Your task to perform on an android device: set an alarm Image 0: 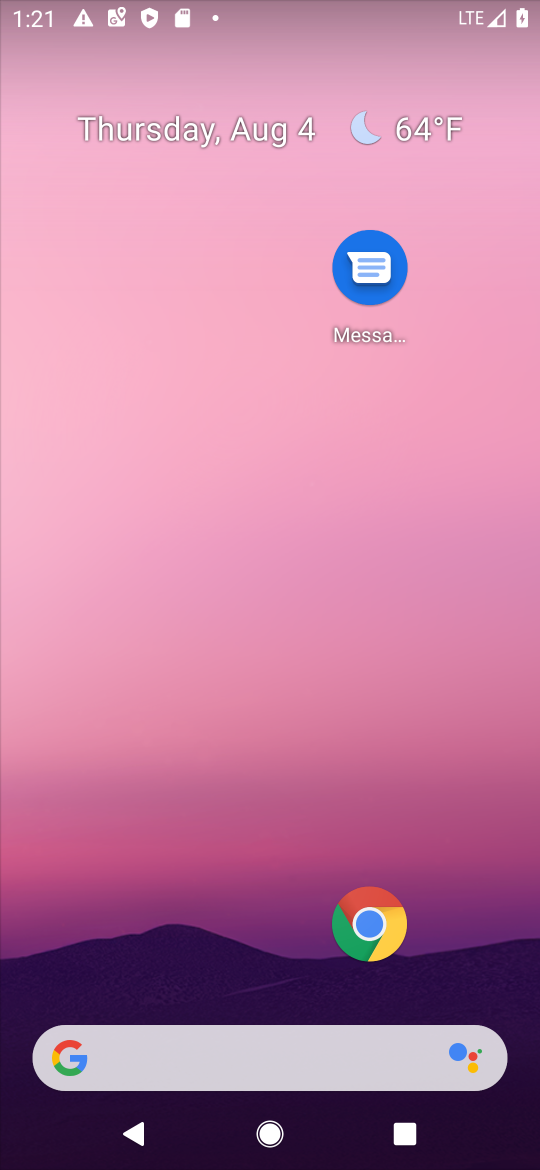
Step 0: drag from (50, 1076) to (321, 189)
Your task to perform on an android device: set an alarm Image 1: 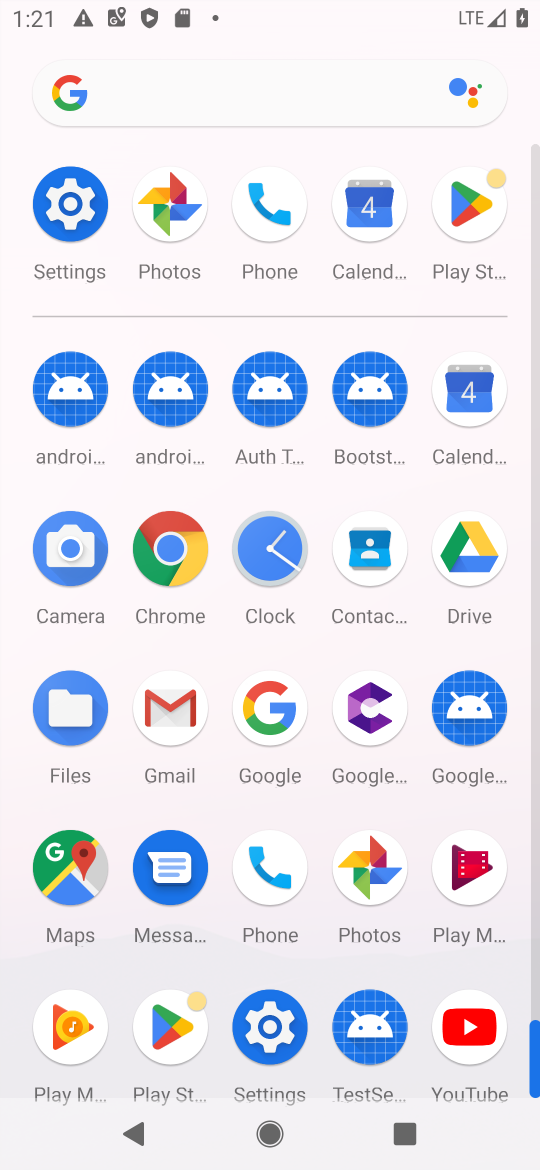
Step 1: click (263, 568)
Your task to perform on an android device: set an alarm Image 2: 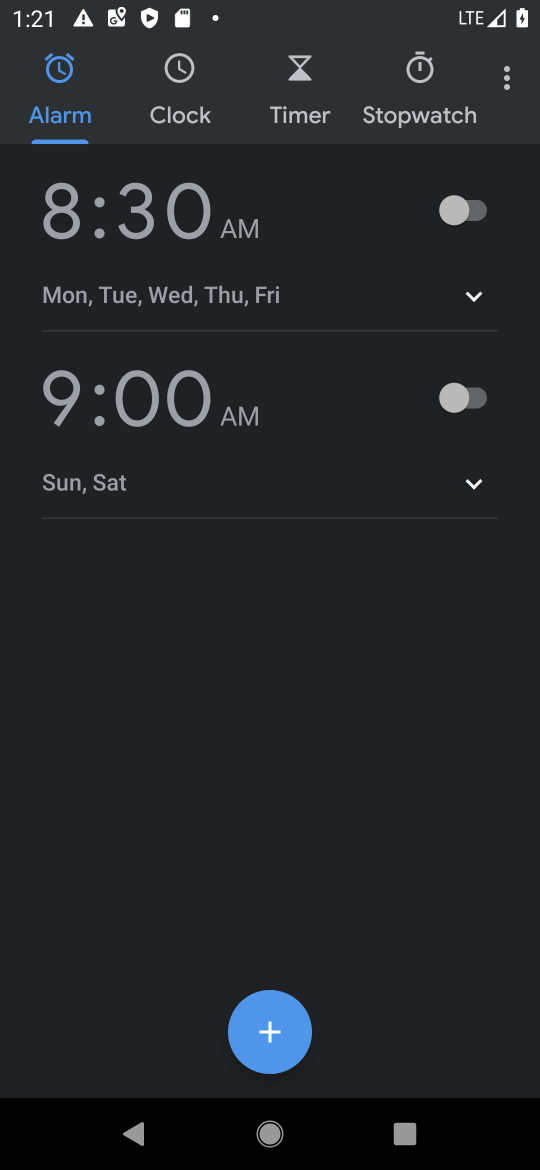
Step 2: click (456, 208)
Your task to perform on an android device: set an alarm Image 3: 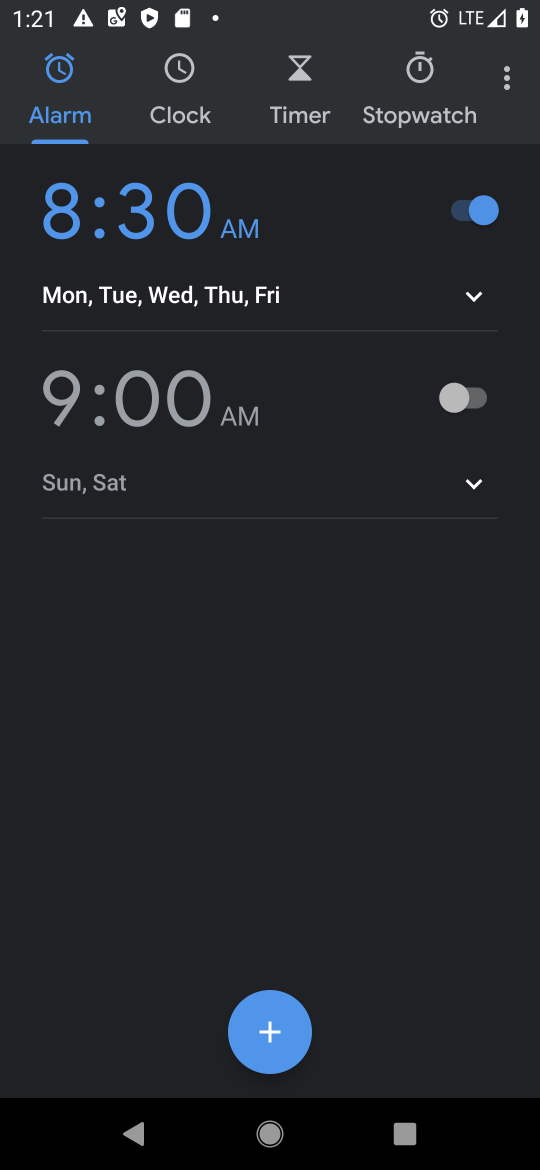
Step 3: task complete